Your task to perform on an android device: Open Google Chrome and open the bookmarks view Image 0: 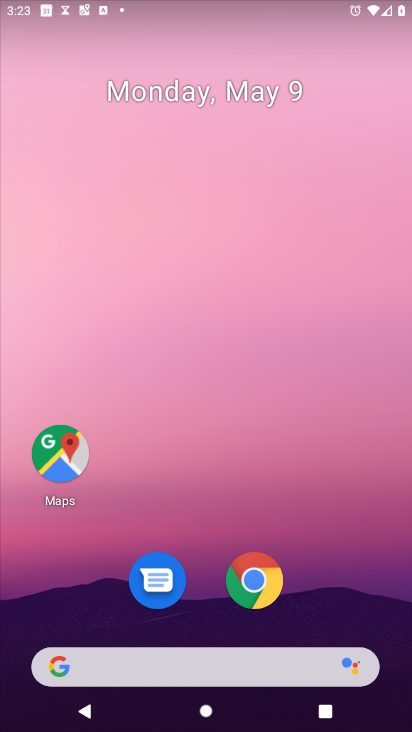
Step 0: click (269, 587)
Your task to perform on an android device: Open Google Chrome and open the bookmarks view Image 1: 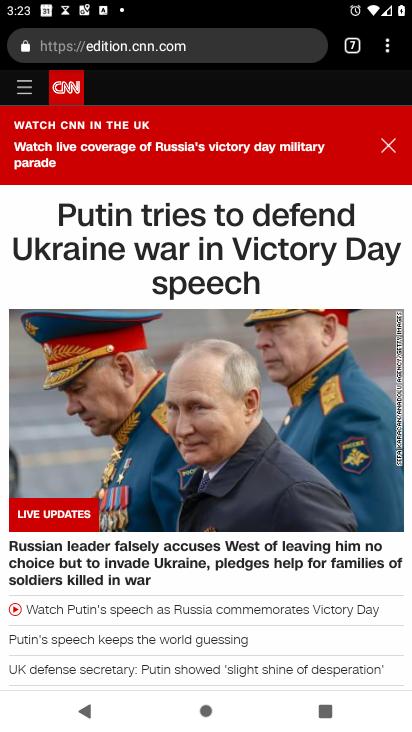
Step 1: click (395, 48)
Your task to perform on an android device: Open Google Chrome and open the bookmarks view Image 2: 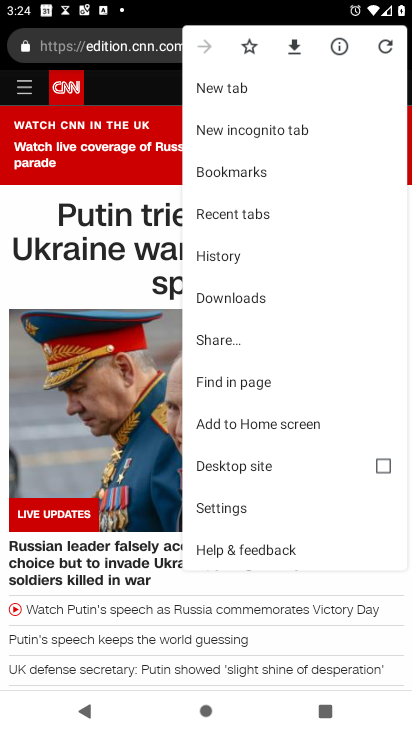
Step 2: click (248, 173)
Your task to perform on an android device: Open Google Chrome and open the bookmarks view Image 3: 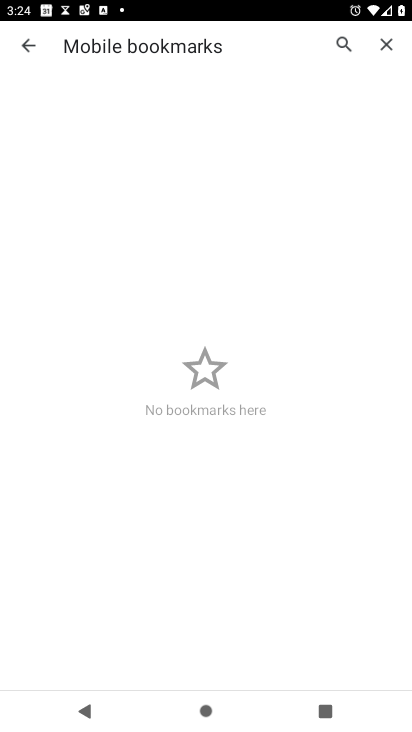
Step 3: task complete